Your task to perform on an android device: open a bookmark in the chrome app Image 0: 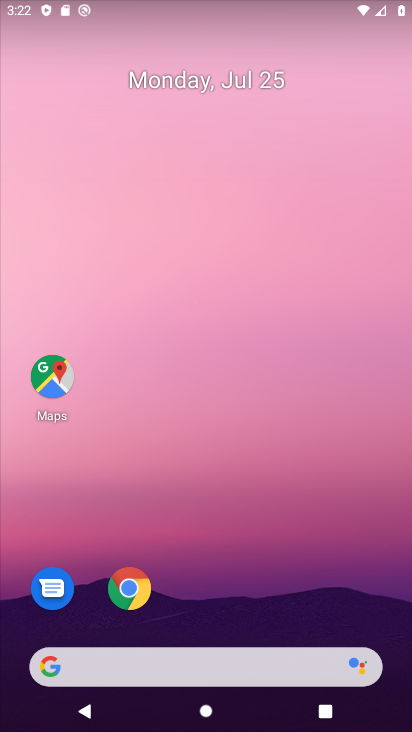
Step 0: press home button
Your task to perform on an android device: open a bookmark in the chrome app Image 1: 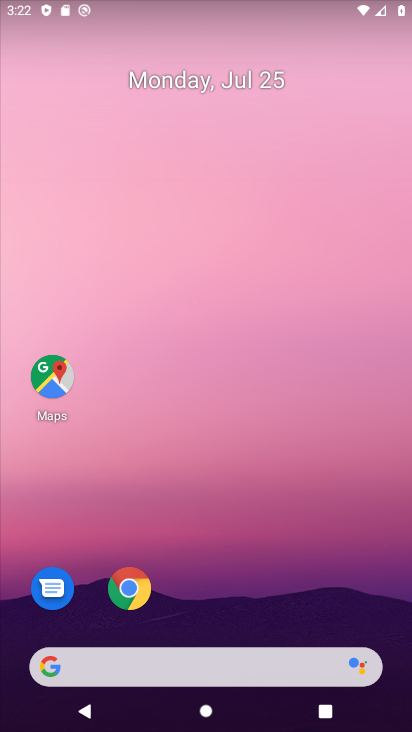
Step 1: drag from (236, 704) to (246, 161)
Your task to perform on an android device: open a bookmark in the chrome app Image 2: 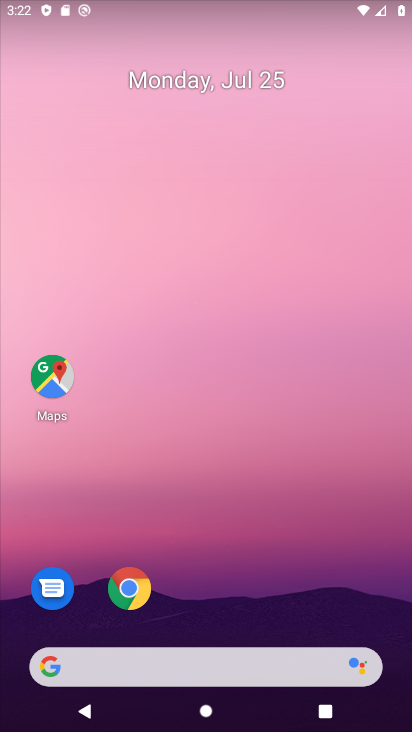
Step 2: drag from (225, 724) to (215, 98)
Your task to perform on an android device: open a bookmark in the chrome app Image 3: 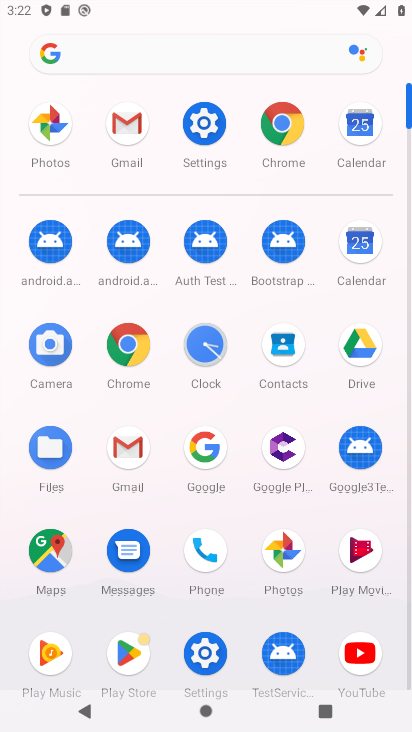
Step 3: click (280, 122)
Your task to perform on an android device: open a bookmark in the chrome app Image 4: 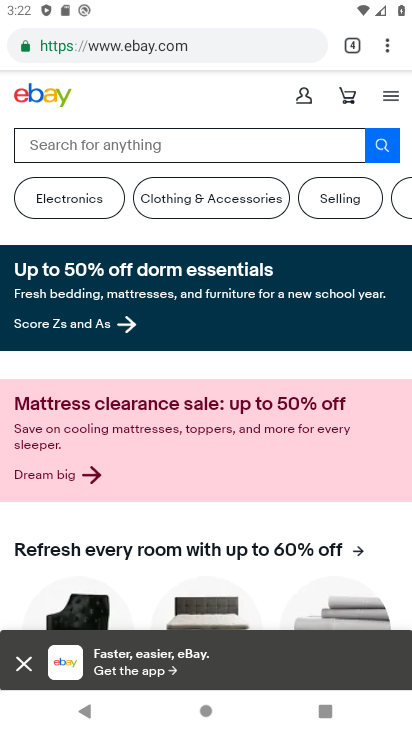
Step 4: click (388, 53)
Your task to perform on an android device: open a bookmark in the chrome app Image 5: 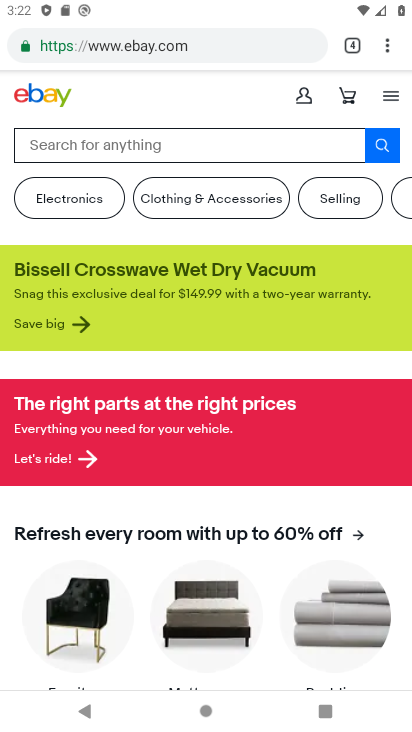
Step 5: click (388, 49)
Your task to perform on an android device: open a bookmark in the chrome app Image 6: 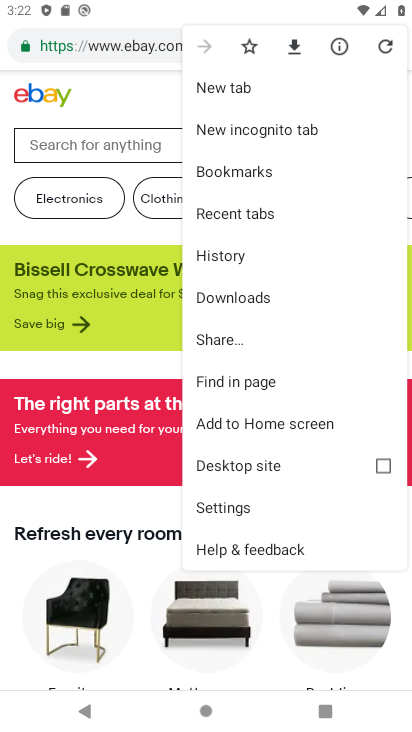
Step 6: click (240, 165)
Your task to perform on an android device: open a bookmark in the chrome app Image 7: 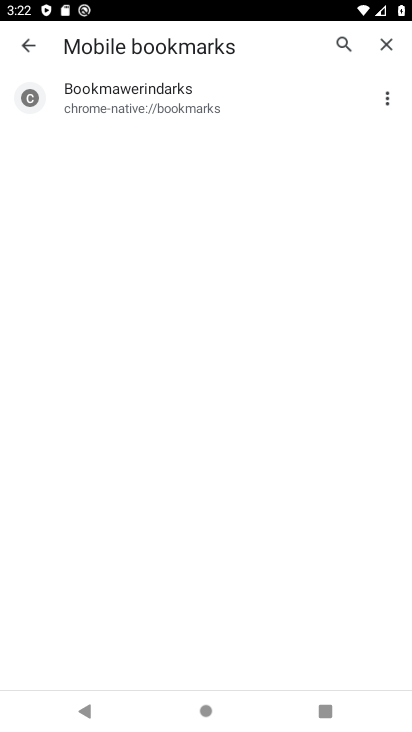
Step 7: click (130, 89)
Your task to perform on an android device: open a bookmark in the chrome app Image 8: 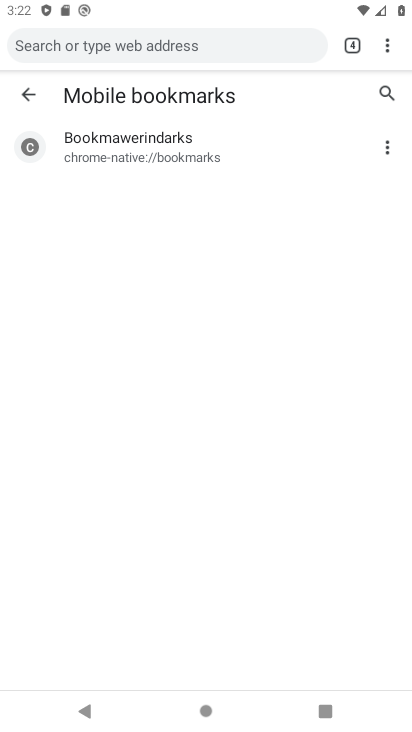
Step 8: click (132, 134)
Your task to perform on an android device: open a bookmark in the chrome app Image 9: 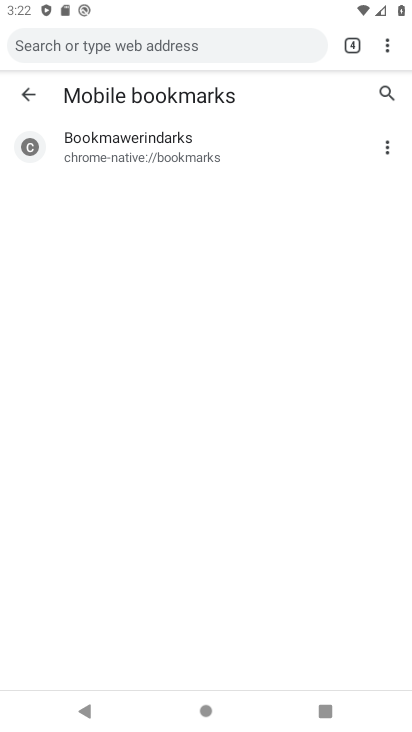
Step 9: click (137, 137)
Your task to perform on an android device: open a bookmark in the chrome app Image 10: 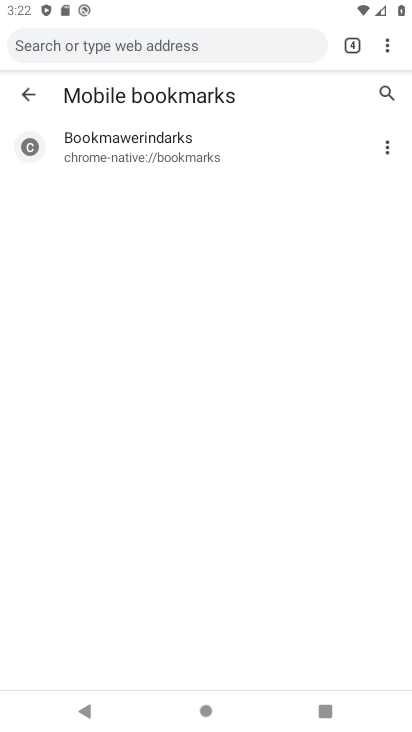
Step 10: click (142, 136)
Your task to perform on an android device: open a bookmark in the chrome app Image 11: 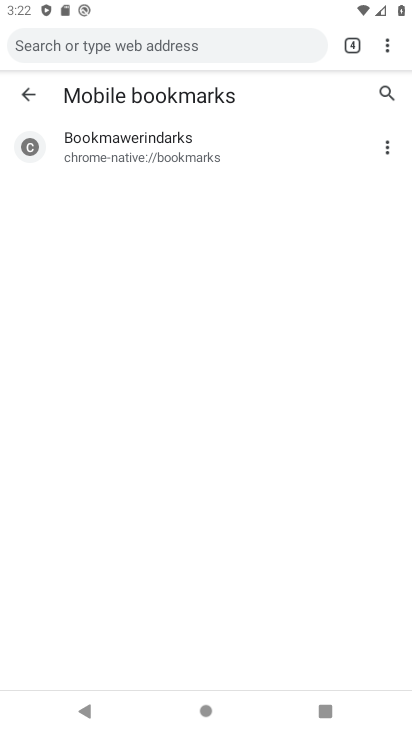
Step 11: task complete